Your task to perform on an android device: visit the assistant section in the google photos Image 0: 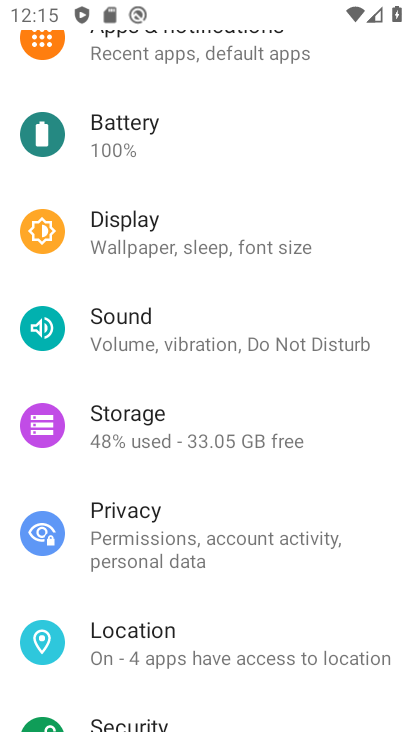
Step 0: press home button
Your task to perform on an android device: visit the assistant section in the google photos Image 1: 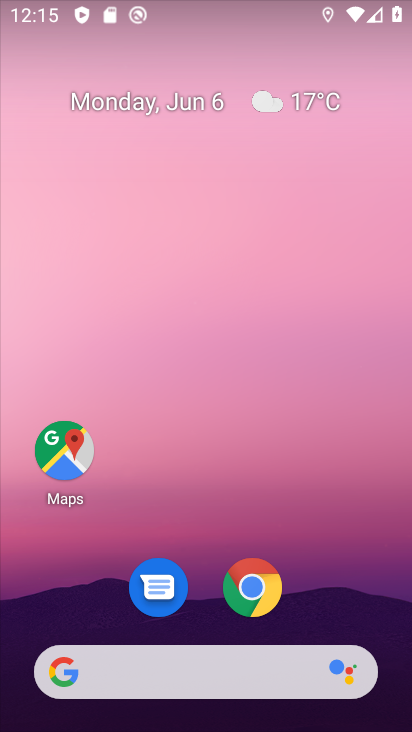
Step 1: drag from (342, 595) to (289, 121)
Your task to perform on an android device: visit the assistant section in the google photos Image 2: 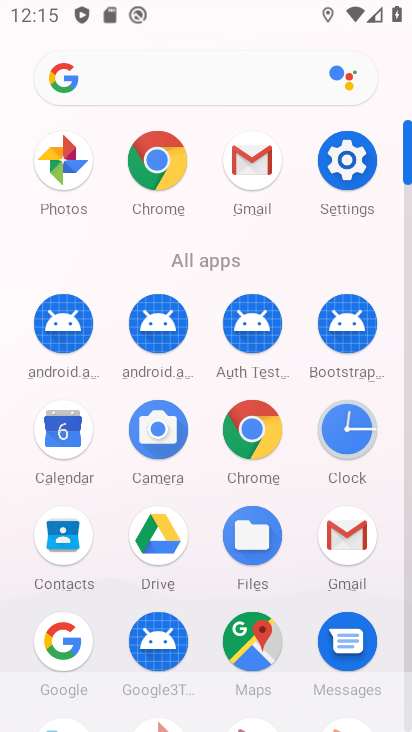
Step 2: click (68, 161)
Your task to perform on an android device: visit the assistant section in the google photos Image 3: 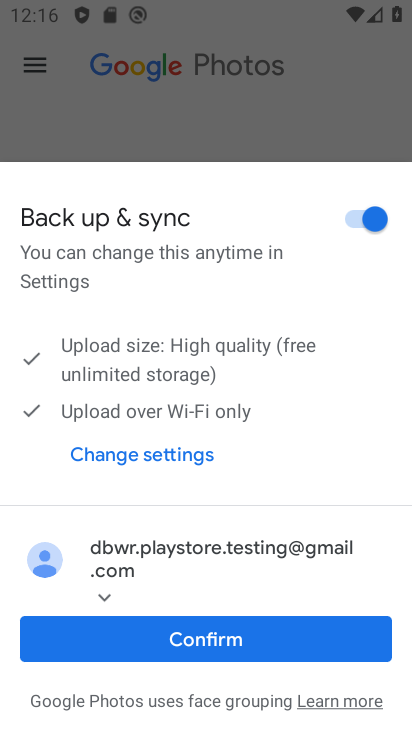
Step 3: click (317, 629)
Your task to perform on an android device: visit the assistant section in the google photos Image 4: 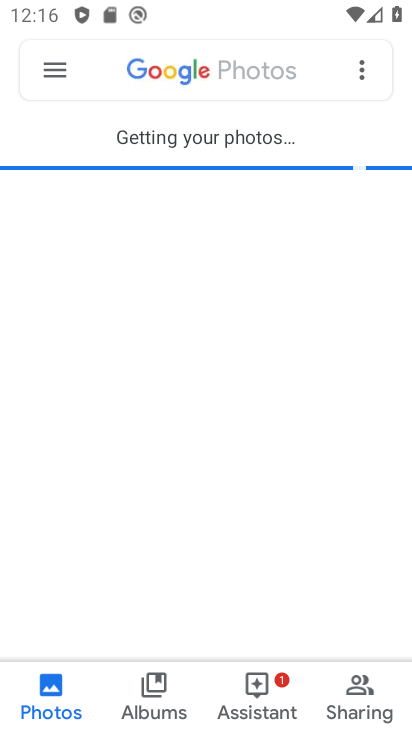
Step 4: click (265, 689)
Your task to perform on an android device: visit the assistant section in the google photos Image 5: 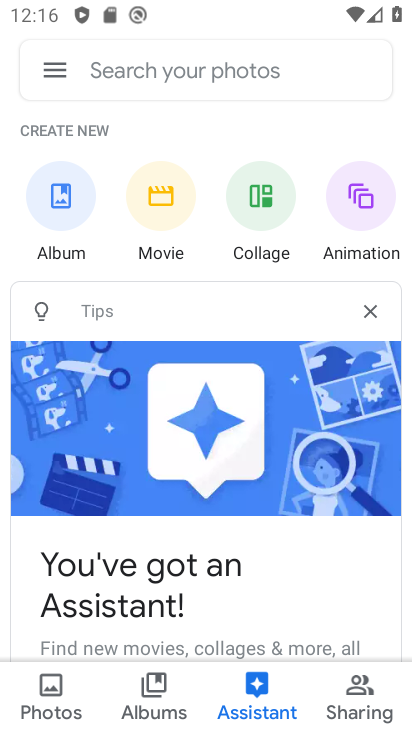
Step 5: task complete